Your task to perform on an android device: Open wifi settings Image 0: 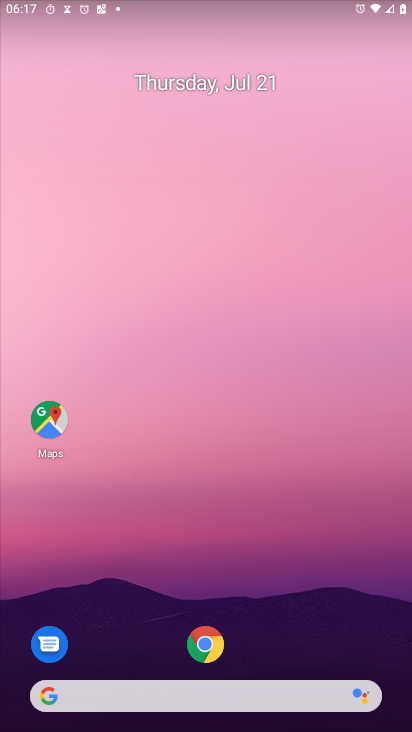
Step 0: press home button
Your task to perform on an android device: Open wifi settings Image 1: 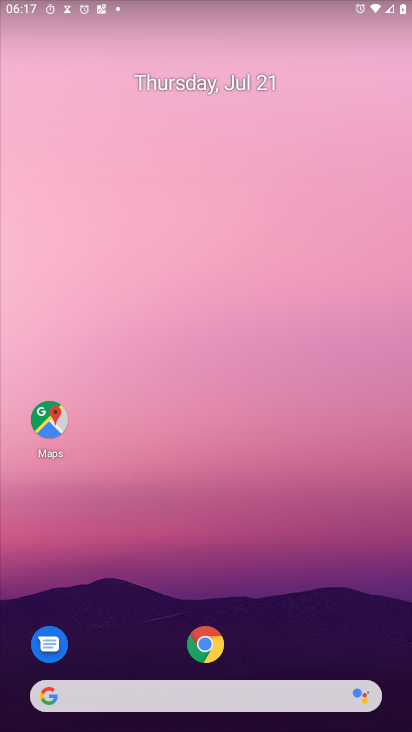
Step 1: drag from (315, 580) to (268, 33)
Your task to perform on an android device: Open wifi settings Image 2: 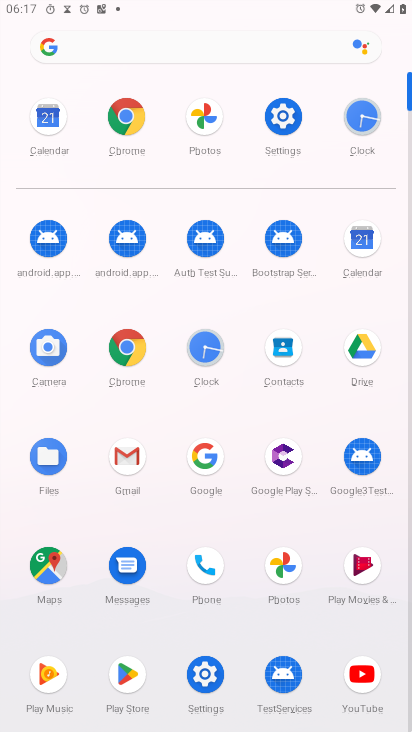
Step 2: click (283, 114)
Your task to perform on an android device: Open wifi settings Image 3: 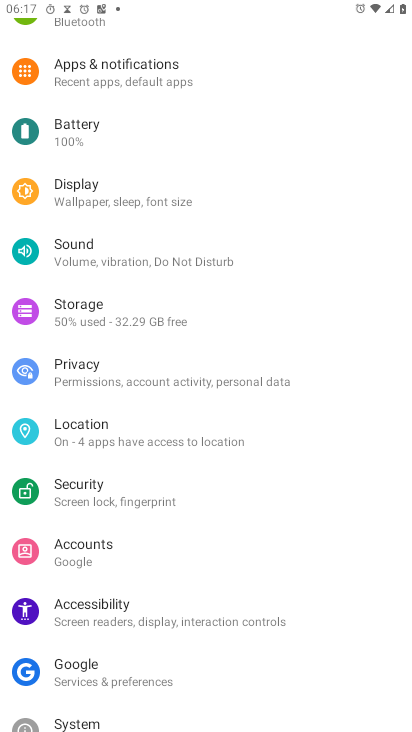
Step 3: drag from (82, 41) to (62, 408)
Your task to perform on an android device: Open wifi settings Image 4: 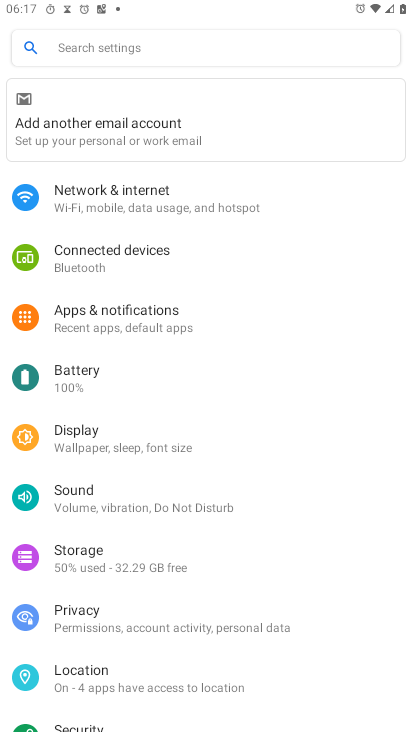
Step 4: click (112, 198)
Your task to perform on an android device: Open wifi settings Image 5: 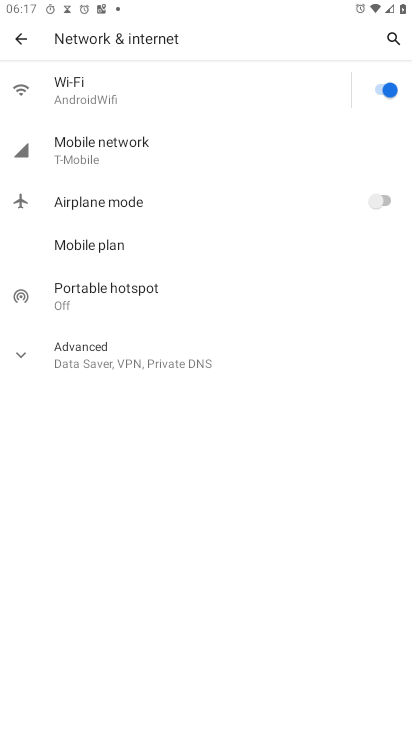
Step 5: task complete